Your task to perform on an android device: What is the news today? Image 0: 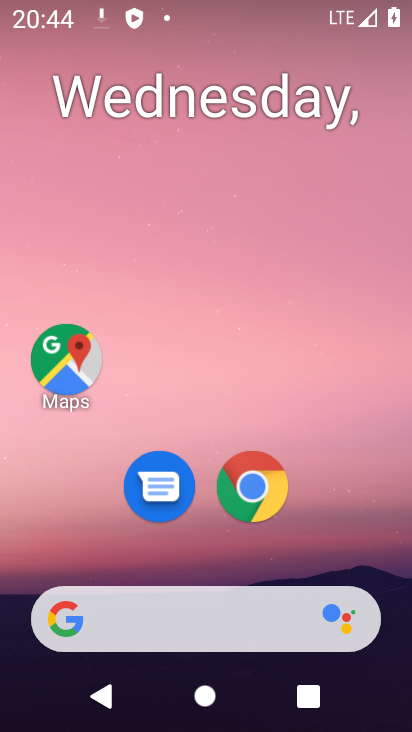
Step 0: click (144, 621)
Your task to perform on an android device: What is the news today? Image 1: 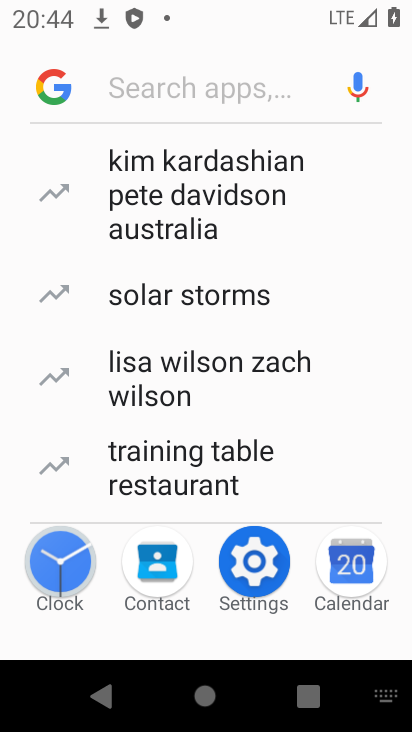
Step 1: click (142, 92)
Your task to perform on an android device: What is the news today? Image 2: 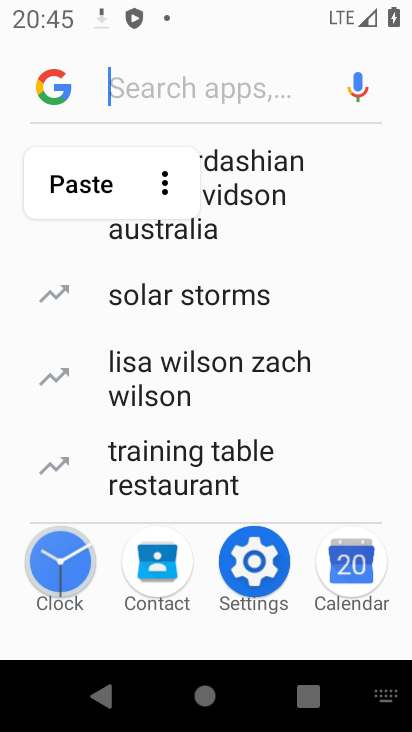
Step 2: type "news today"
Your task to perform on an android device: What is the news today? Image 3: 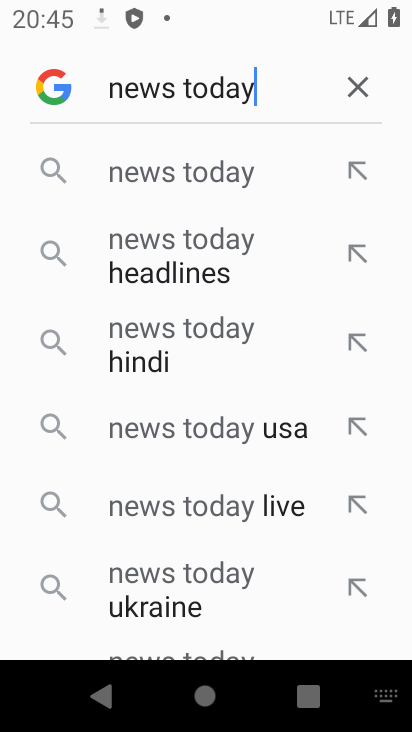
Step 3: click (208, 156)
Your task to perform on an android device: What is the news today? Image 4: 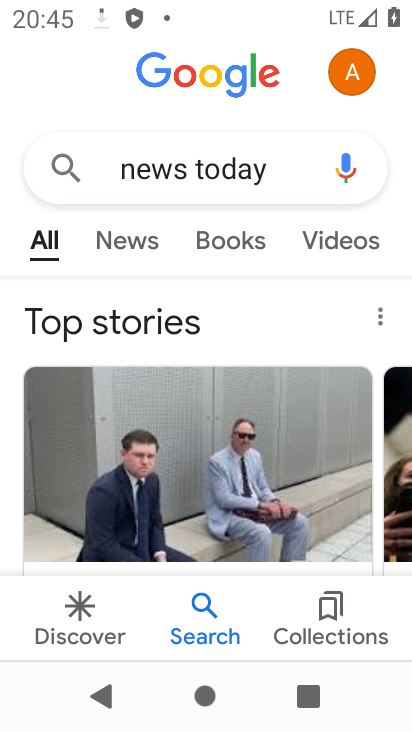
Step 4: task complete